Your task to perform on an android device: open device folders in google photos Image 0: 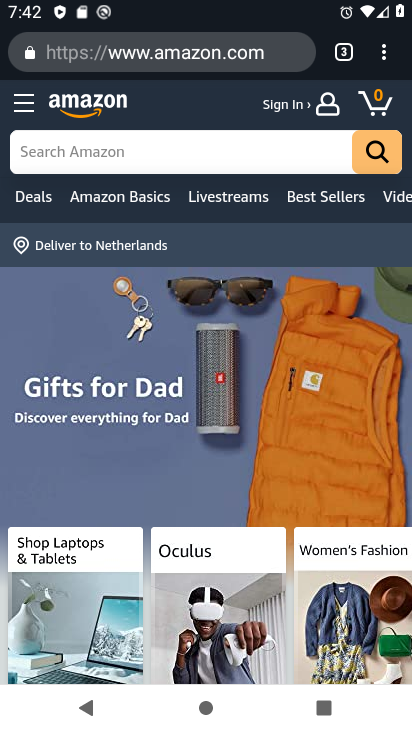
Step 0: press home button
Your task to perform on an android device: open device folders in google photos Image 1: 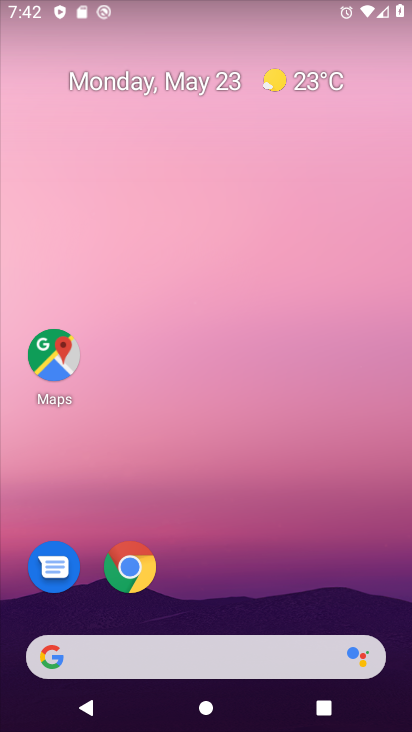
Step 1: drag from (210, 535) to (238, 211)
Your task to perform on an android device: open device folders in google photos Image 2: 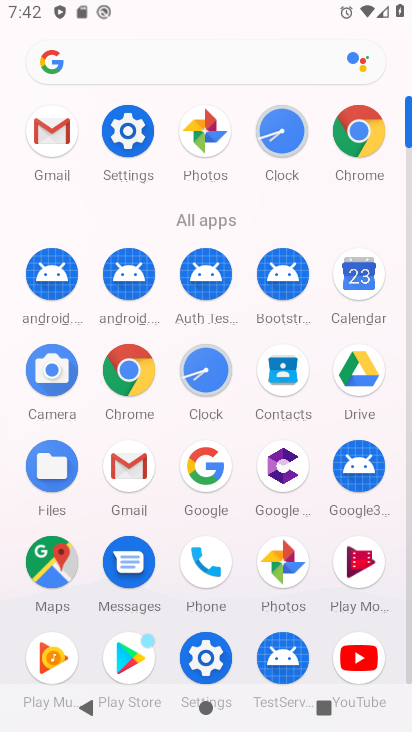
Step 2: click (274, 553)
Your task to perform on an android device: open device folders in google photos Image 3: 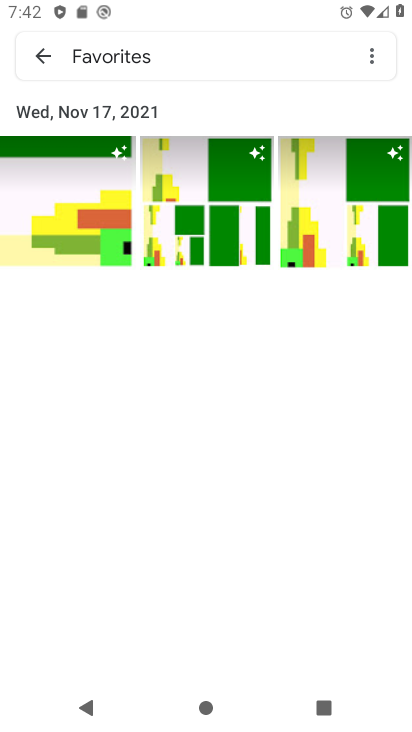
Step 3: click (58, 214)
Your task to perform on an android device: open device folders in google photos Image 4: 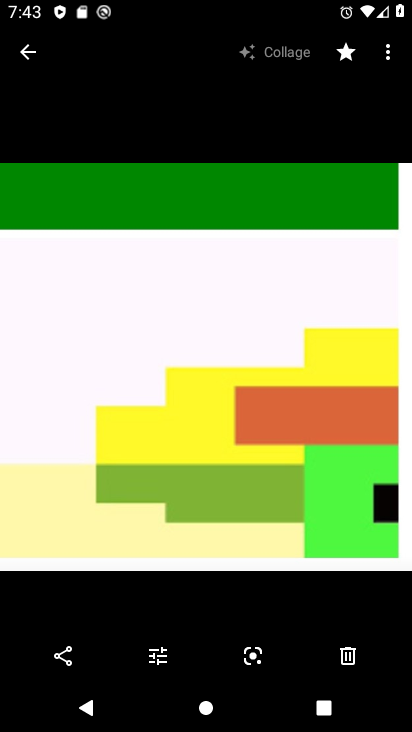
Step 4: task complete